Your task to perform on an android device: open app "Google Play Games" Image 0: 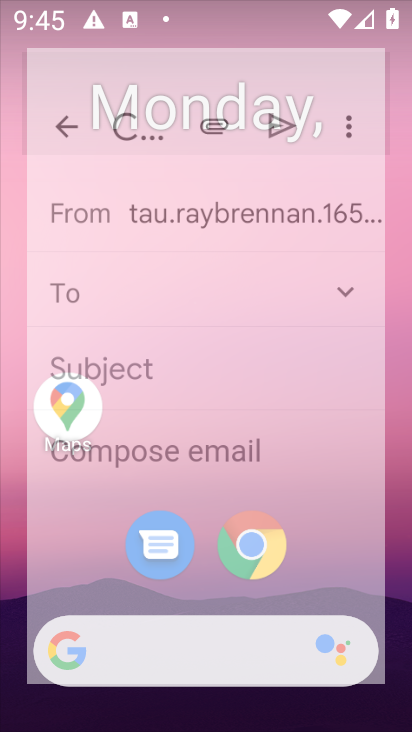
Step 0: press home button
Your task to perform on an android device: open app "Google Play Games" Image 1: 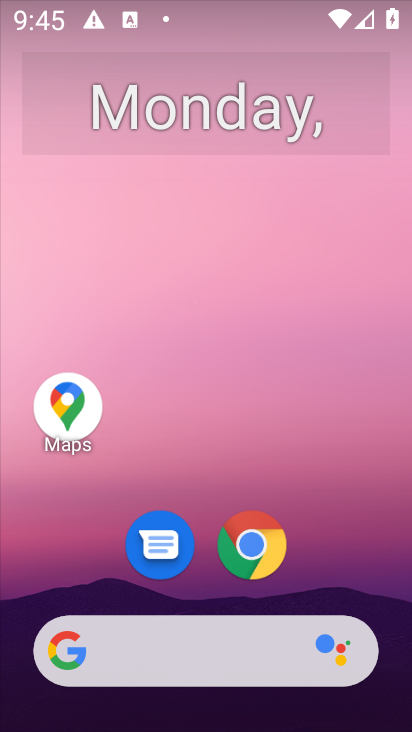
Step 1: drag from (366, 583) to (356, 83)
Your task to perform on an android device: open app "Google Play Games" Image 2: 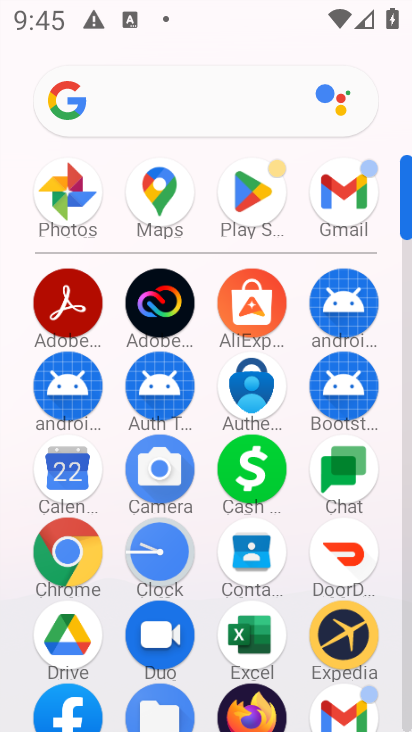
Step 2: click (253, 194)
Your task to perform on an android device: open app "Google Play Games" Image 3: 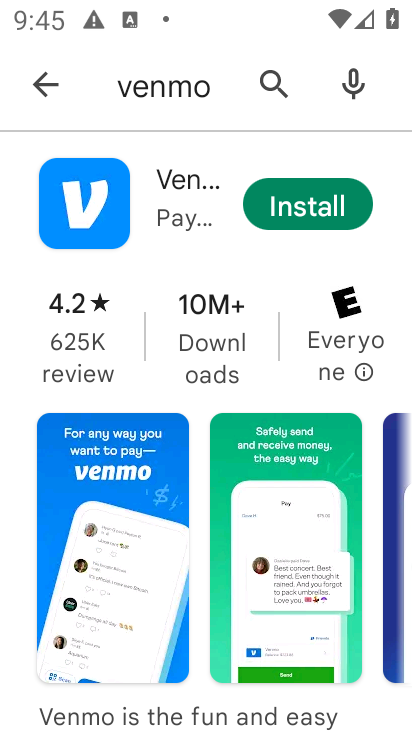
Step 3: press back button
Your task to perform on an android device: open app "Google Play Games" Image 4: 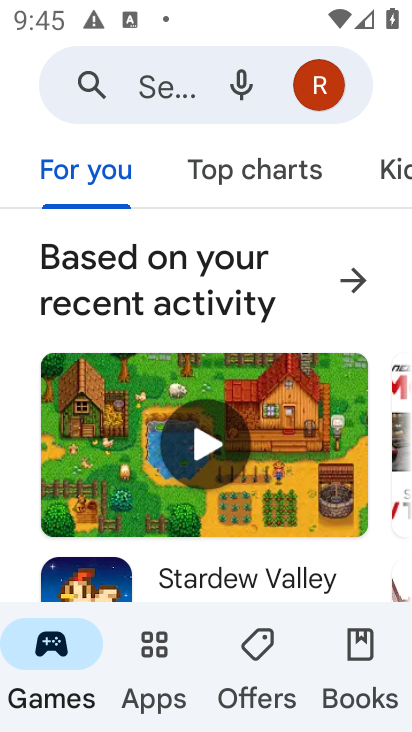
Step 4: click (148, 77)
Your task to perform on an android device: open app "Google Play Games" Image 5: 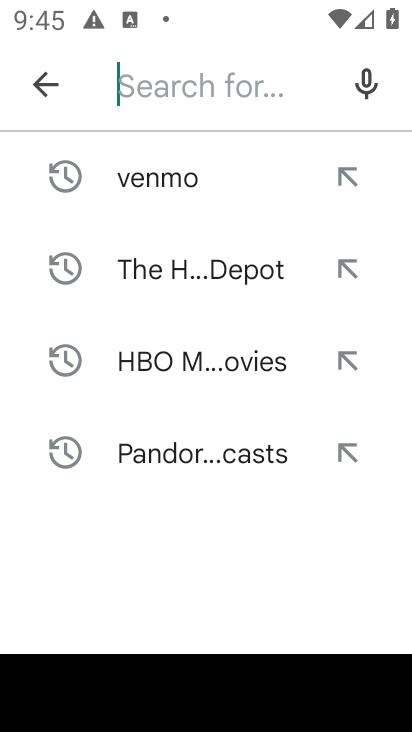
Step 5: type "Google Play Games"
Your task to perform on an android device: open app "Google Play Games" Image 6: 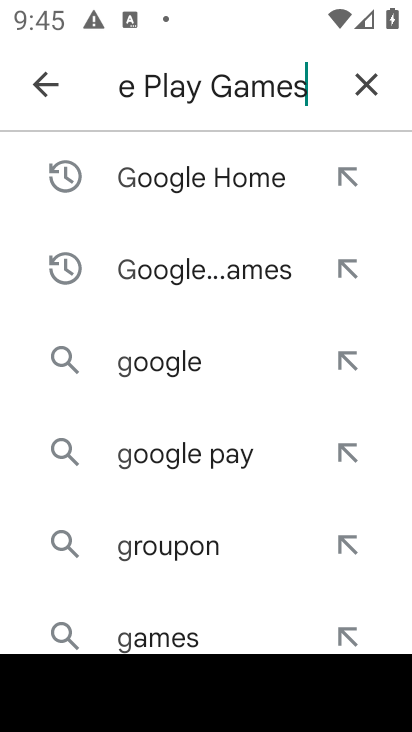
Step 6: press enter
Your task to perform on an android device: open app "Google Play Games" Image 7: 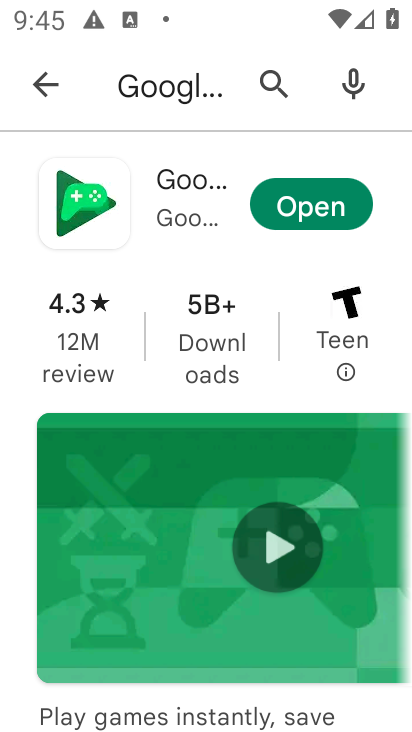
Step 7: click (306, 206)
Your task to perform on an android device: open app "Google Play Games" Image 8: 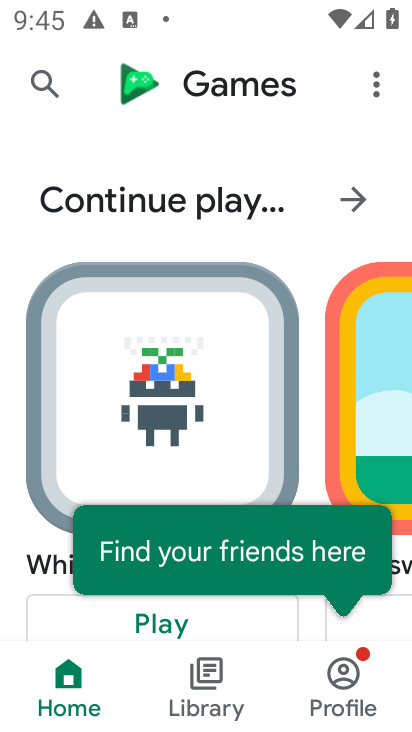
Step 8: task complete